Your task to perform on an android device: add a label to a message in the gmail app Image 0: 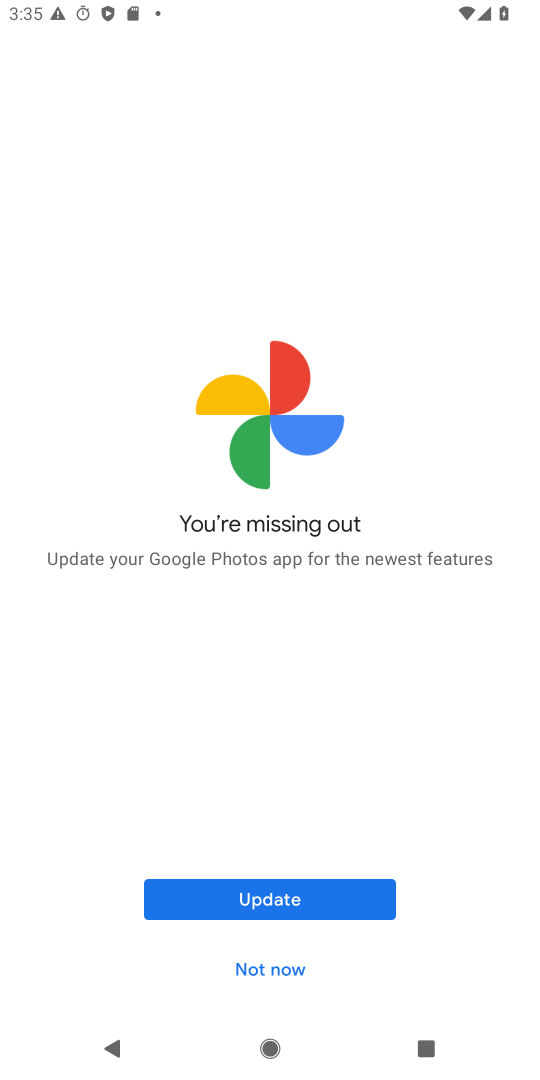
Step 0: press home button
Your task to perform on an android device: add a label to a message in the gmail app Image 1: 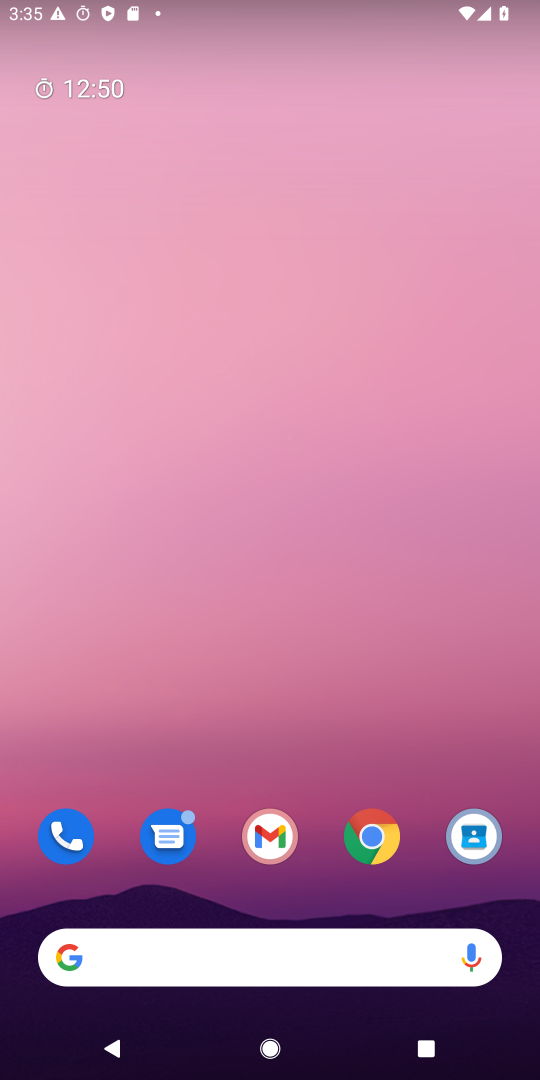
Step 1: click (278, 836)
Your task to perform on an android device: add a label to a message in the gmail app Image 2: 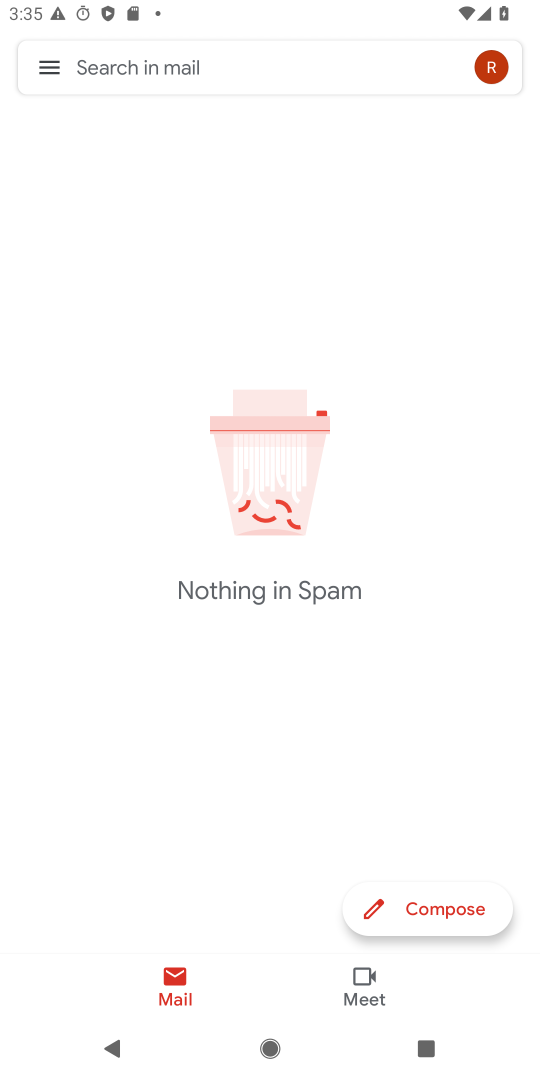
Step 2: click (55, 66)
Your task to perform on an android device: add a label to a message in the gmail app Image 3: 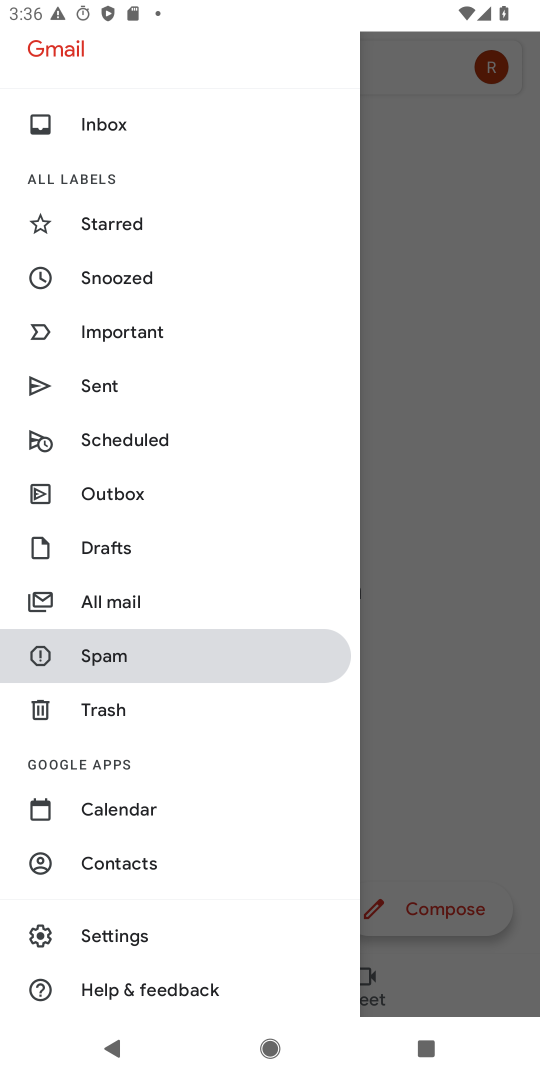
Step 3: click (116, 124)
Your task to perform on an android device: add a label to a message in the gmail app Image 4: 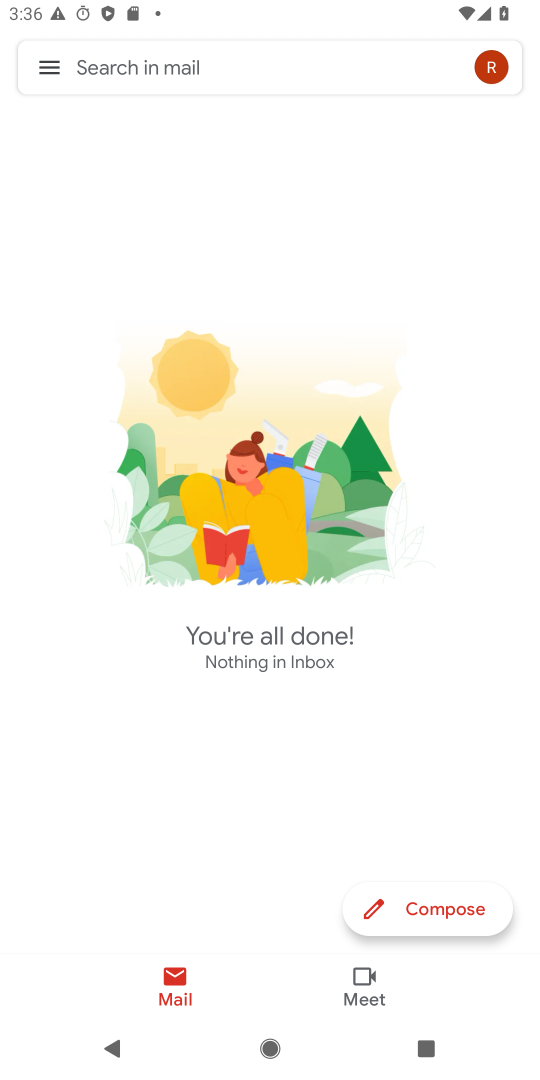
Step 4: click (93, 128)
Your task to perform on an android device: add a label to a message in the gmail app Image 5: 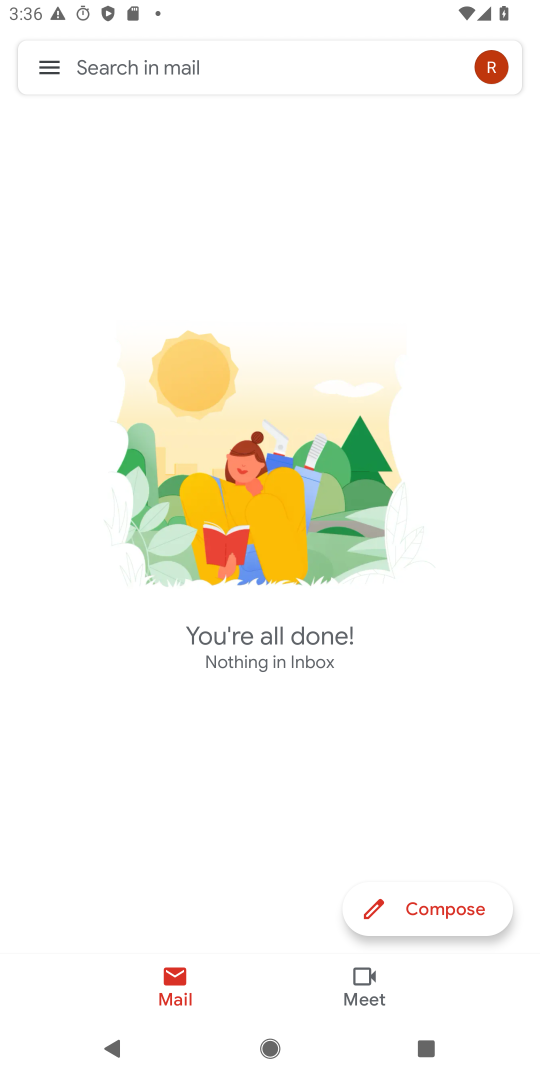
Step 5: click (297, 360)
Your task to perform on an android device: add a label to a message in the gmail app Image 6: 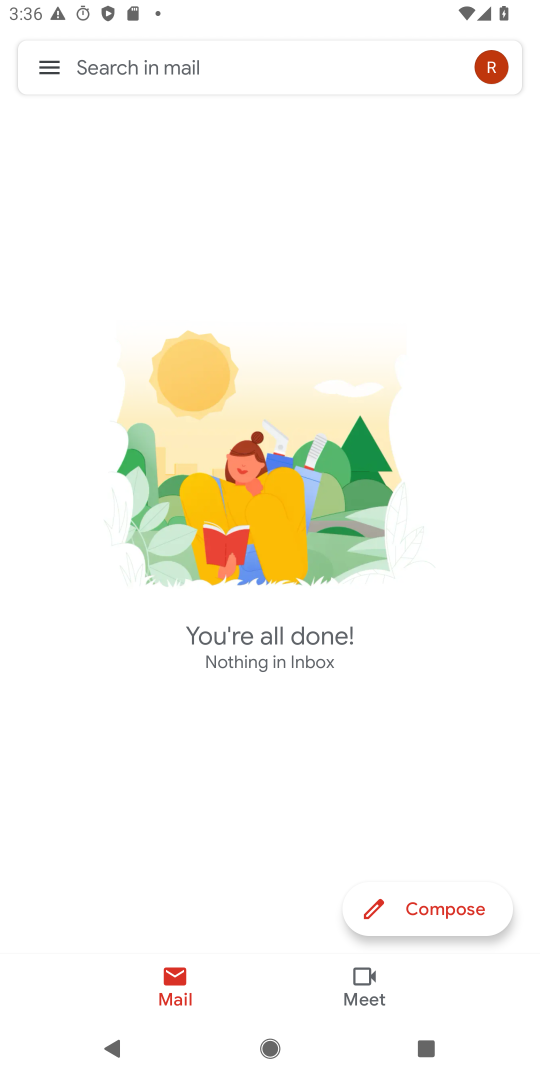
Step 6: task complete